Your task to perform on an android device: Check the news Image 0: 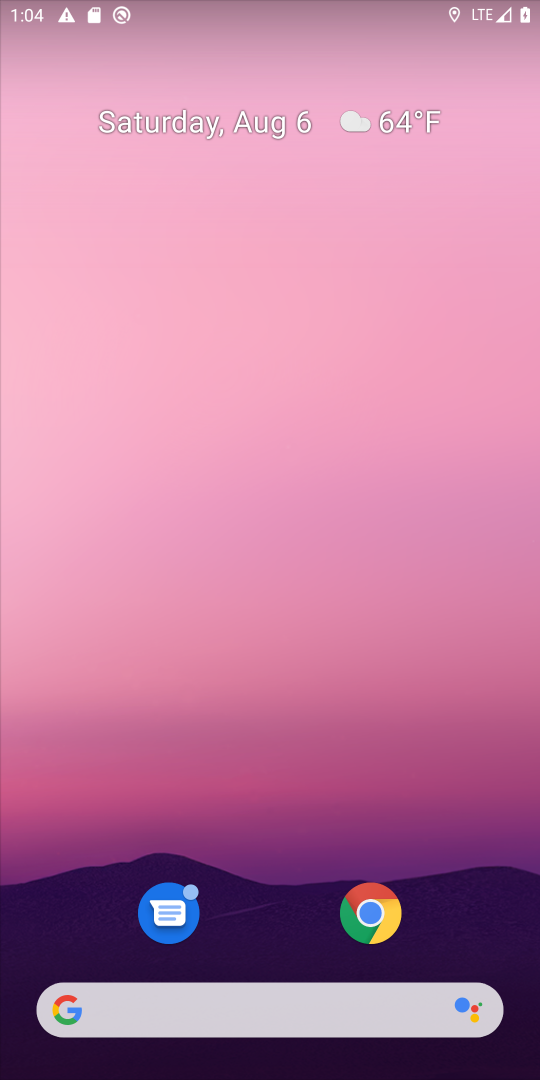
Step 0: press home button
Your task to perform on an android device: Check the news Image 1: 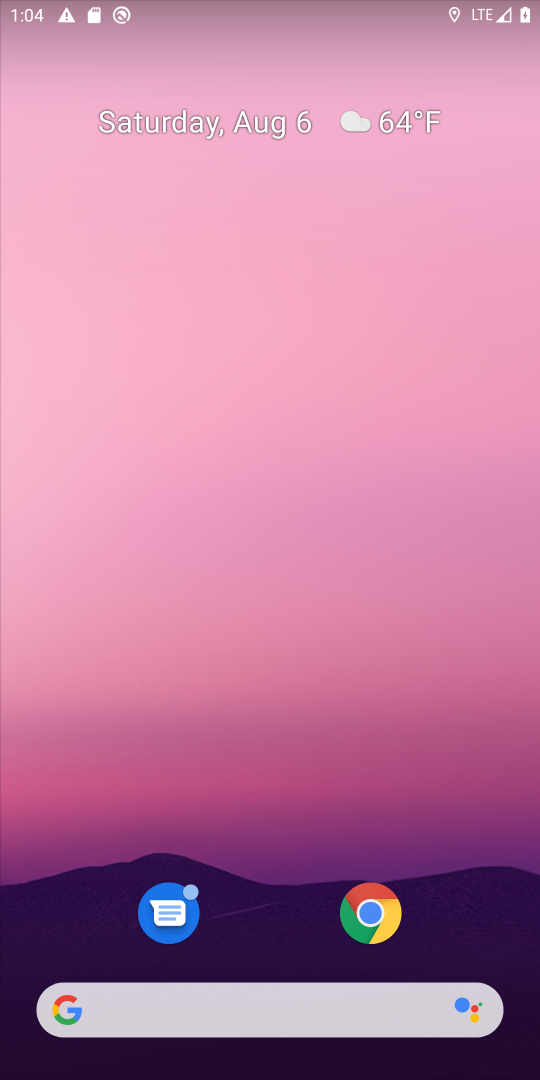
Step 1: task complete